Your task to perform on an android device: turn off airplane mode Image 0: 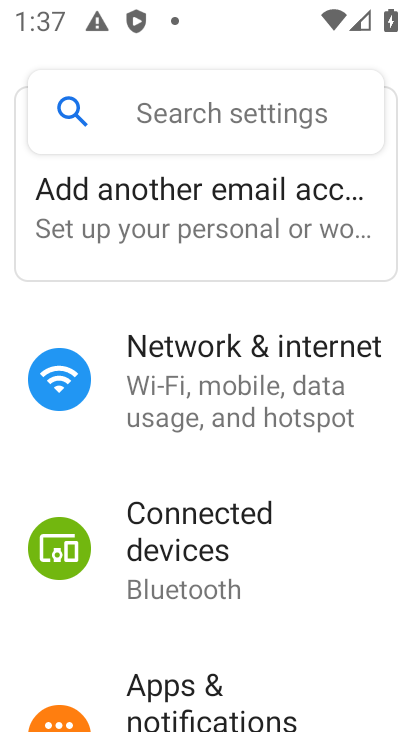
Step 0: click (273, 405)
Your task to perform on an android device: turn off airplane mode Image 1: 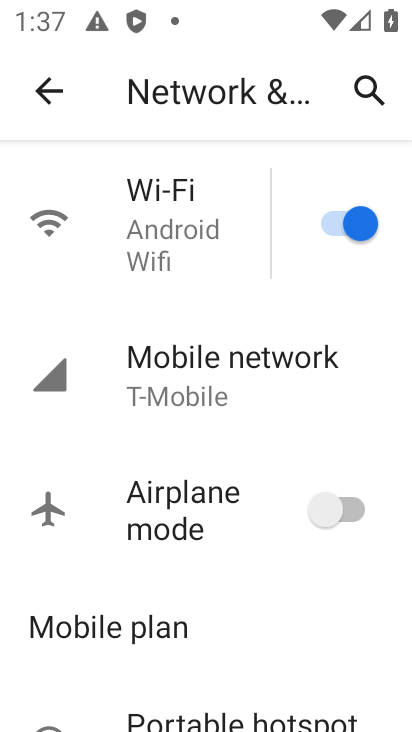
Step 1: task complete